Your task to perform on an android device: What is the recent news? Image 0: 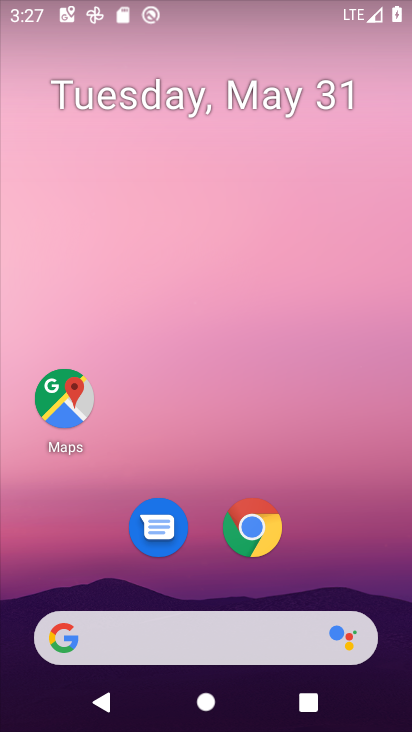
Step 0: drag from (343, 526) to (217, 16)
Your task to perform on an android device: What is the recent news? Image 1: 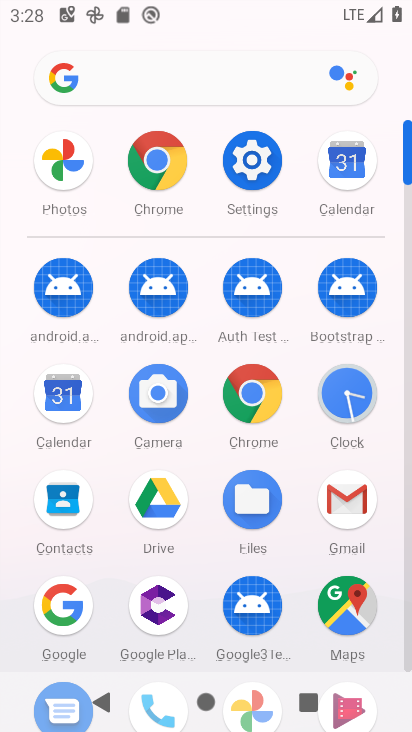
Step 1: click (157, 171)
Your task to perform on an android device: What is the recent news? Image 2: 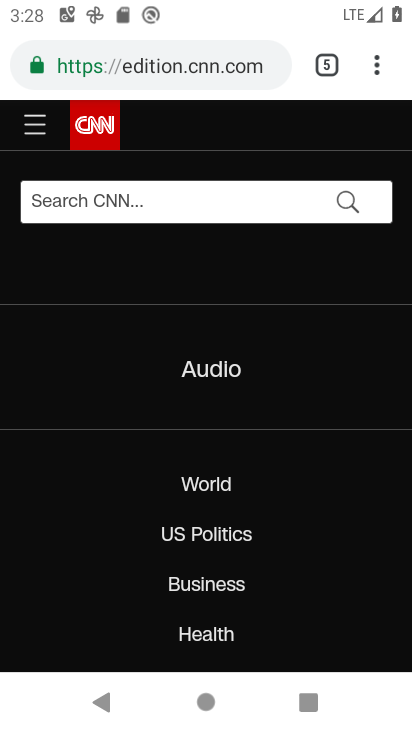
Step 2: task complete